Your task to perform on an android device: turn off translation in the chrome app Image 0: 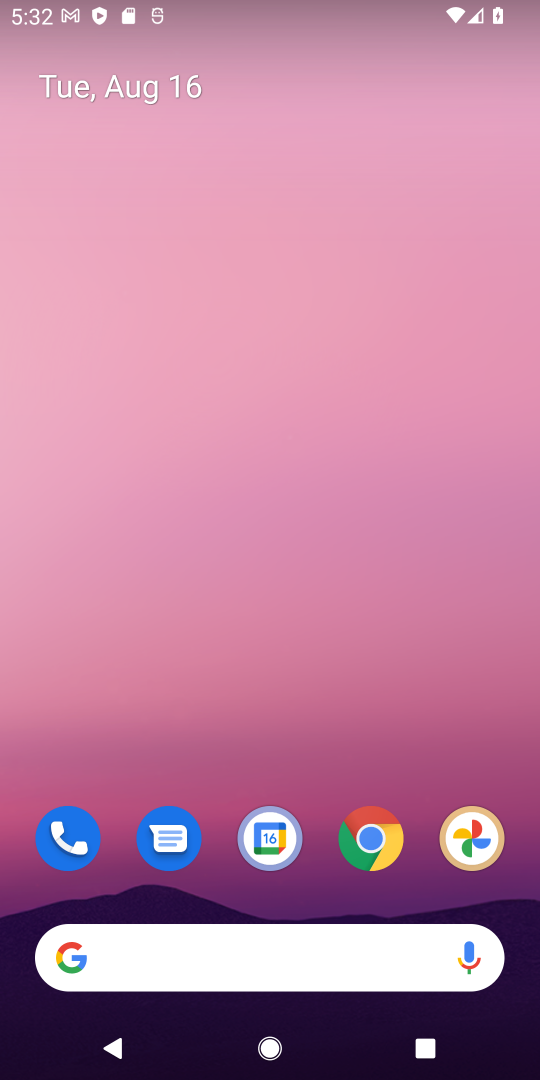
Step 0: click (378, 834)
Your task to perform on an android device: turn off translation in the chrome app Image 1: 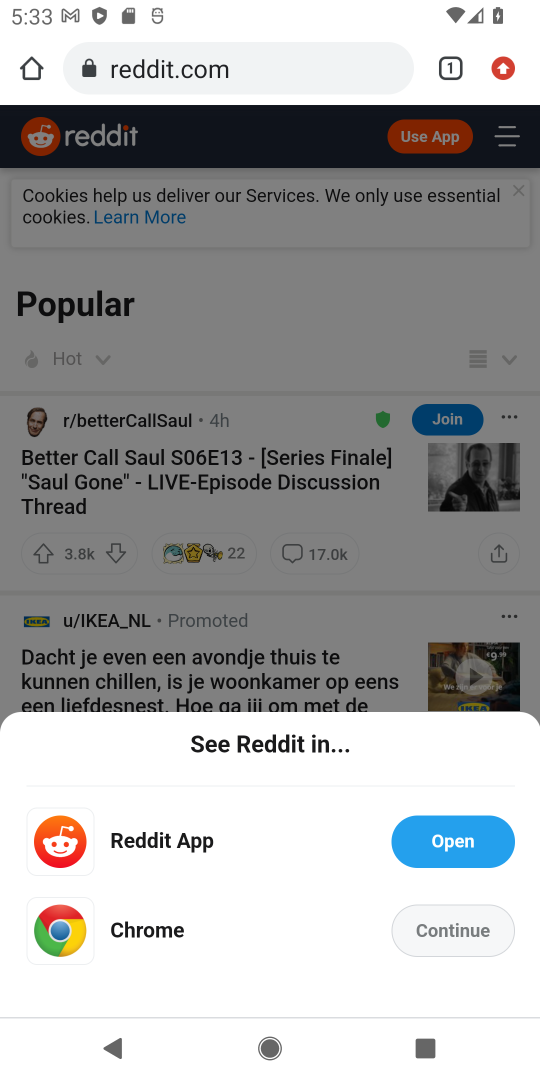
Step 1: drag from (496, 68) to (316, 865)
Your task to perform on an android device: turn off translation in the chrome app Image 2: 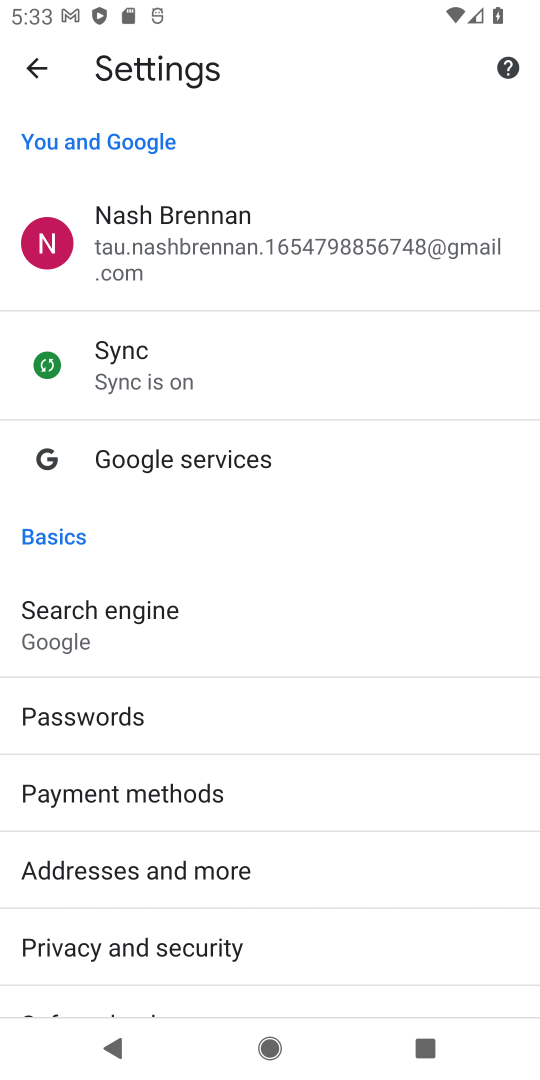
Step 2: drag from (211, 931) to (326, 118)
Your task to perform on an android device: turn off translation in the chrome app Image 3: 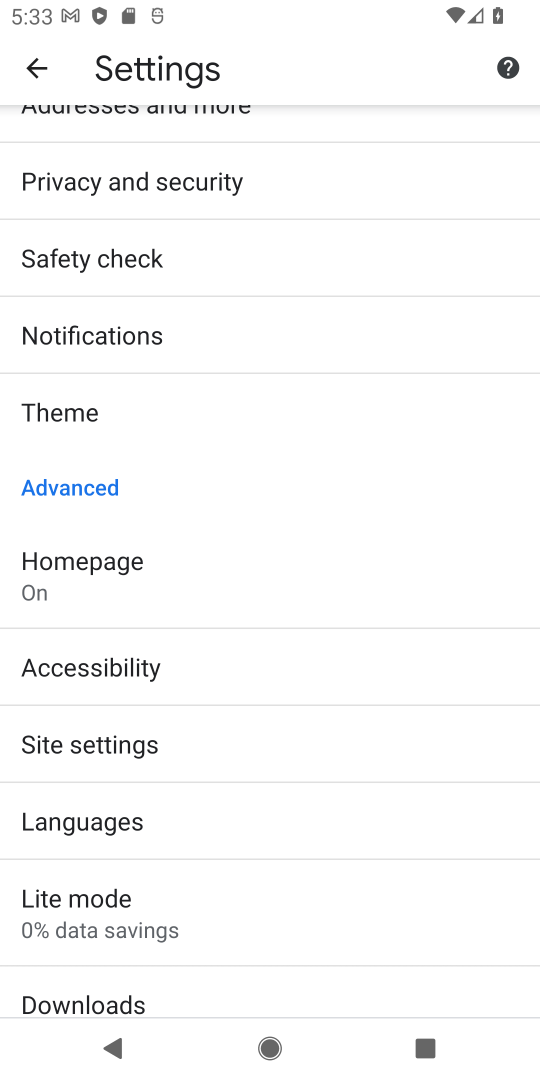
Step 3: click (74, 827)
Your task to perform on an android device: turn off translation in the chrome app Image 4: 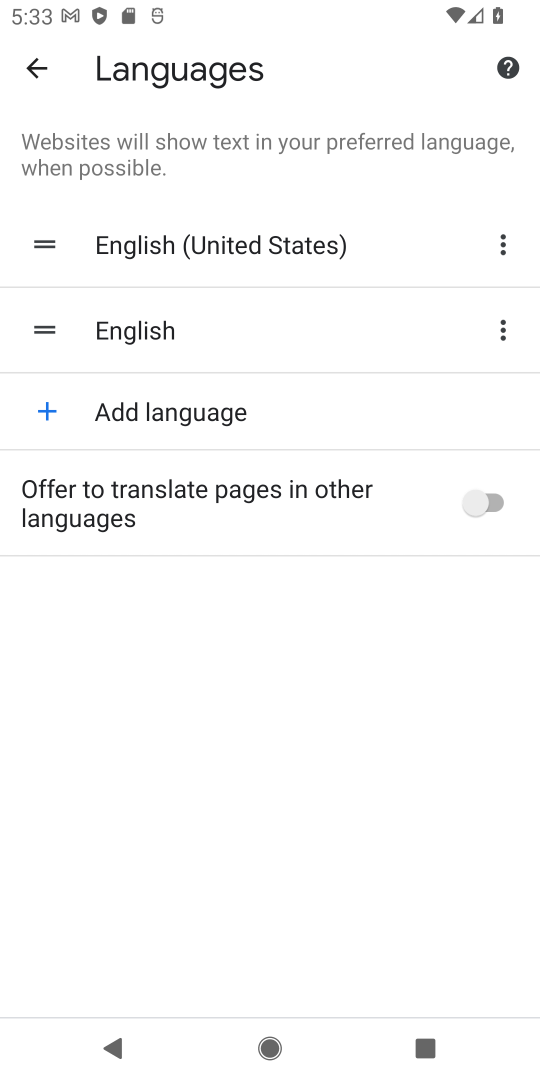
Step 4: task complete